Your task to perform on an android device: check android version Image 0: 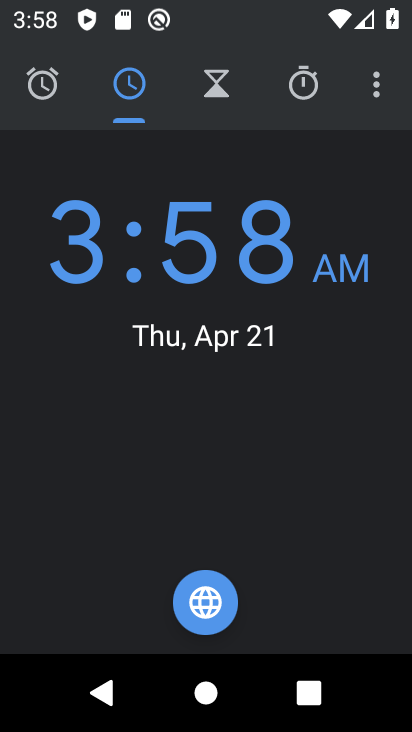
Step 0: press home button
Your task to perform on an android device: check android version Image 1: 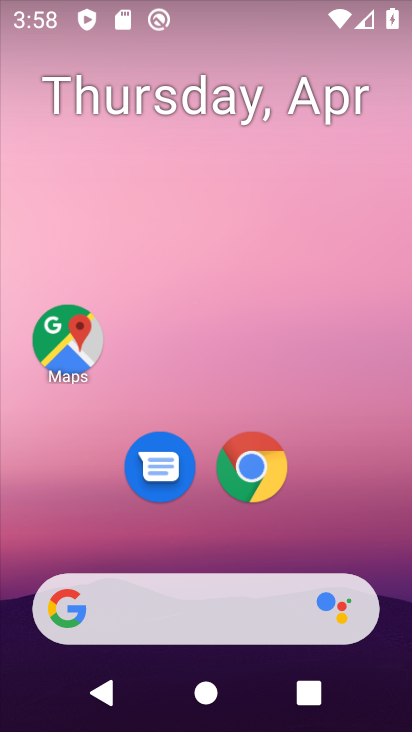
Step 1: drag from (211, 543) to (314, 12)
Your task to perform on an android device: check android version Image 2: 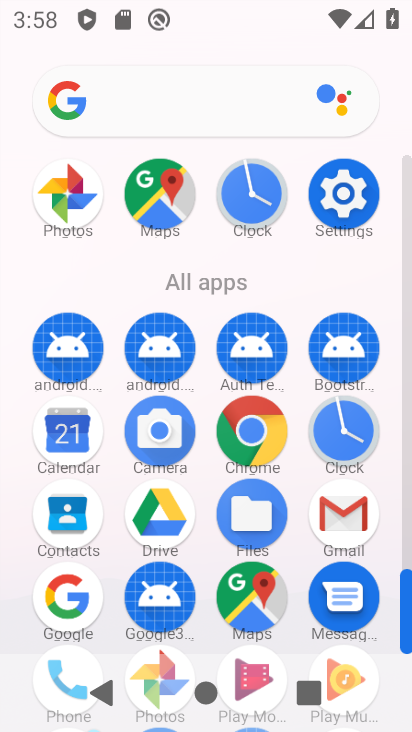
Step 2: click (335, 209)
Your task to perform on an android device: check android version Image 3: 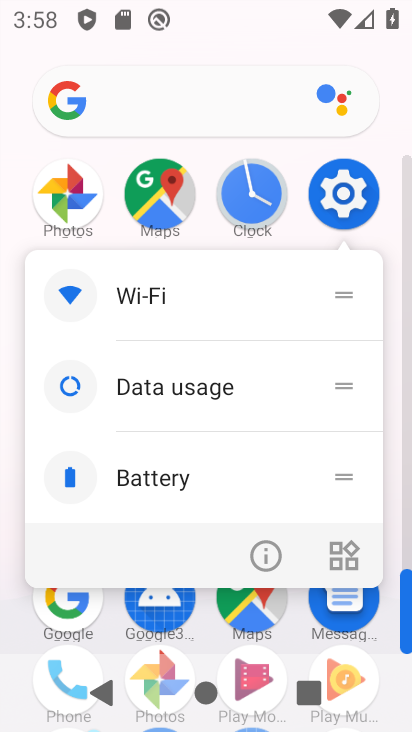
Step 3: click (366, 179)
Your task to perform on an android device: check android version Image 4: 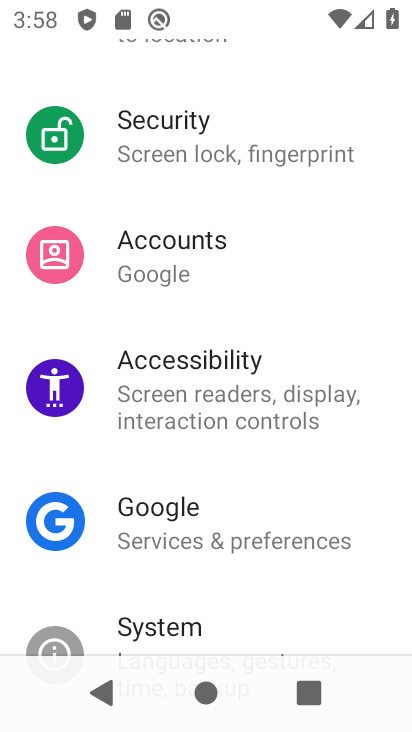
Step 4: drag from (176, 576) to (238, 222)
Your task to perform on an android device: check android version Image 5: 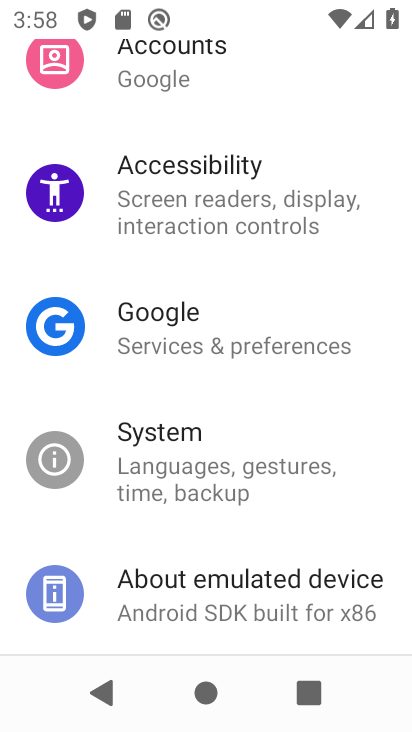
Step 5: click (168, 587)
Your task to perform on an android device: check android version Image 6: 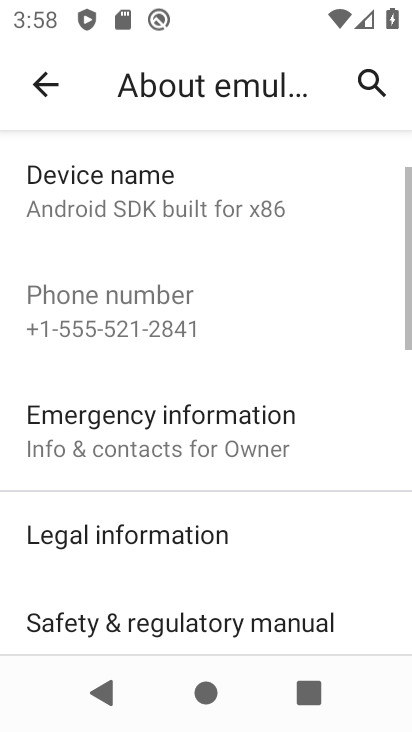
Step 6: drag from (129, 480) to (221, 158)
Your task to perform on an android device: check android version Image 7: 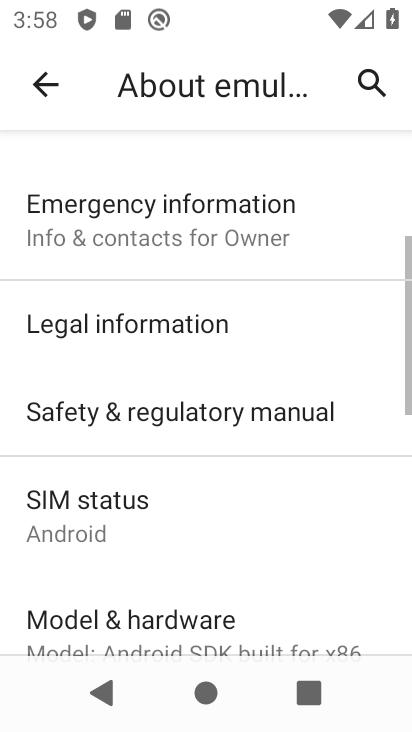
Step 7: drag from (116, 509) to (197, 215)
Your task to perform on an android device: check android version Image 8: 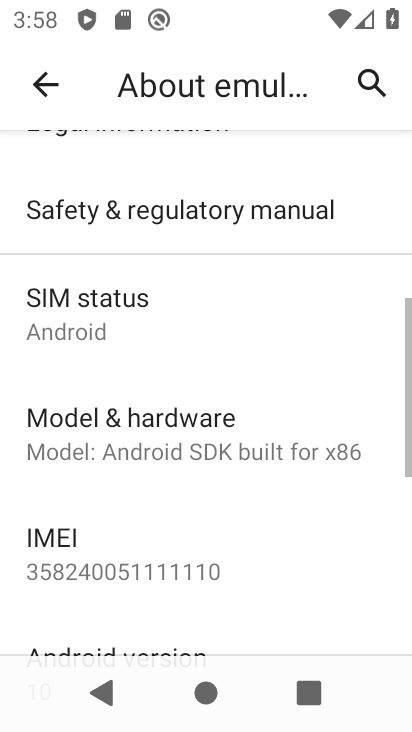
Step 8: drag from (131, 529) to (214, 144)
Your task to perform on an android device: check android version Image 9: 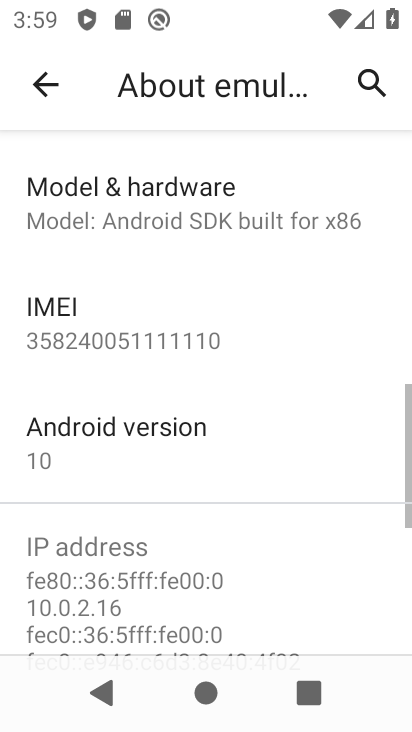
Step 9: click (122, 455)
Your task to perform on an android device: check android version Image 10: 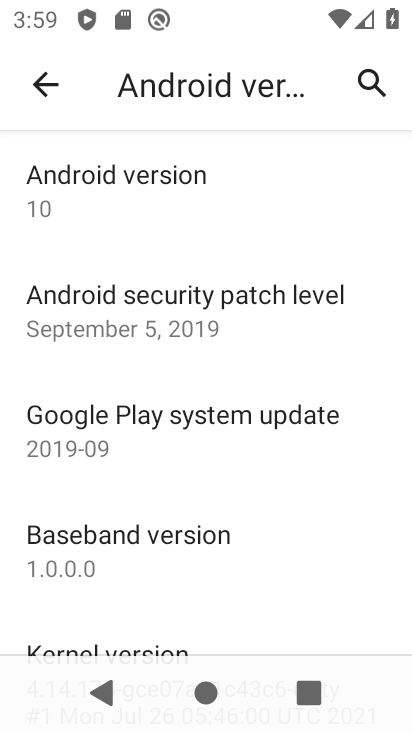
Step 10: task complete